Your task to perform on an android device: Open the map Image 0: 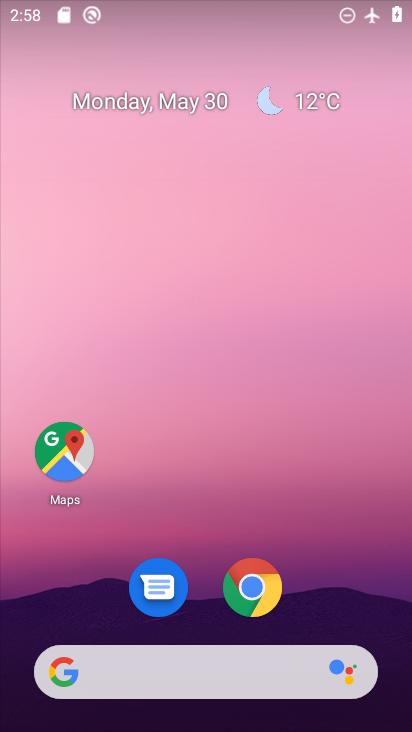
Step 0: click (57, 454)
Your task to perform on an android device: Open the map Image 1: 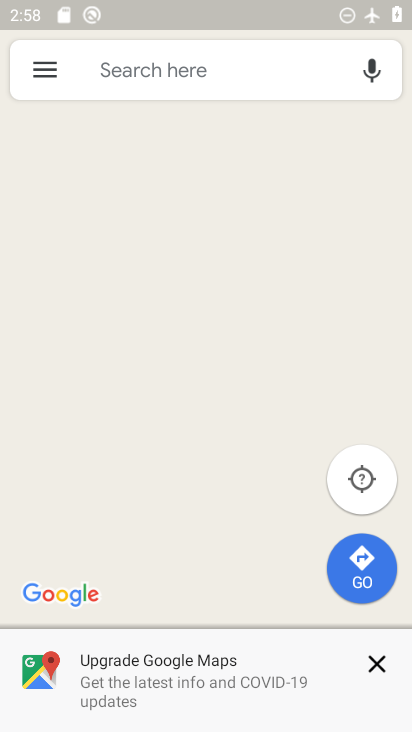
Step 1: task complete